Your task to perform on an android device: change timer sound Image 0: 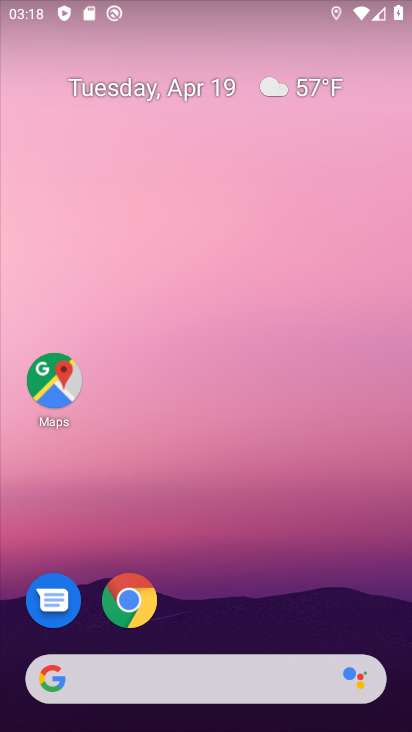
Step 0: drag from (387, 596) to (219, 58)
Your task to perform on an android device: change timer sound Image 1: 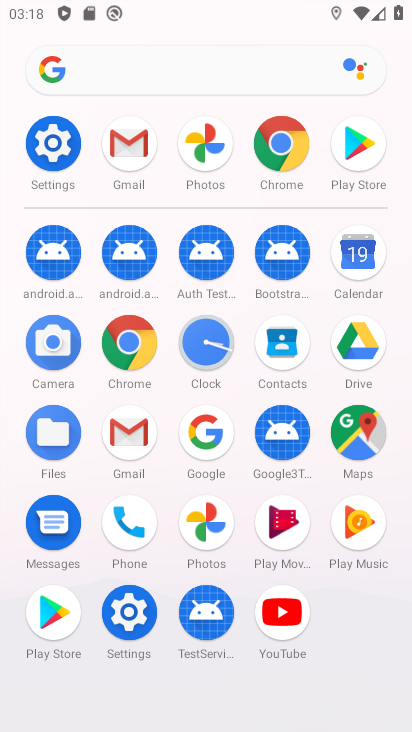
Step 1: click (218, 344)
Your task to perform on an android device: change timer sound Image 2: 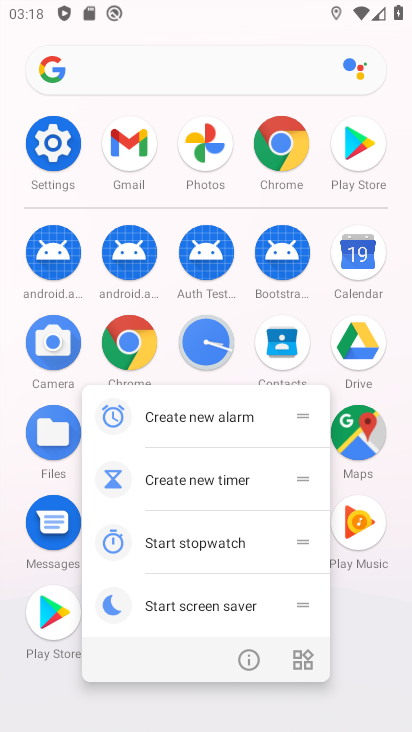
Step 2: click (213, 344)
Your task to perform on an android device: change timer sound Image 3: 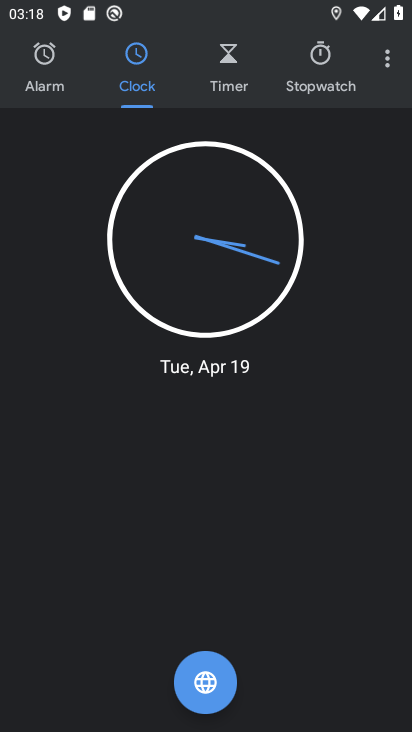
Step 3: click (395, 78)
Your task to perform on an android device: change timer sound Image 4: 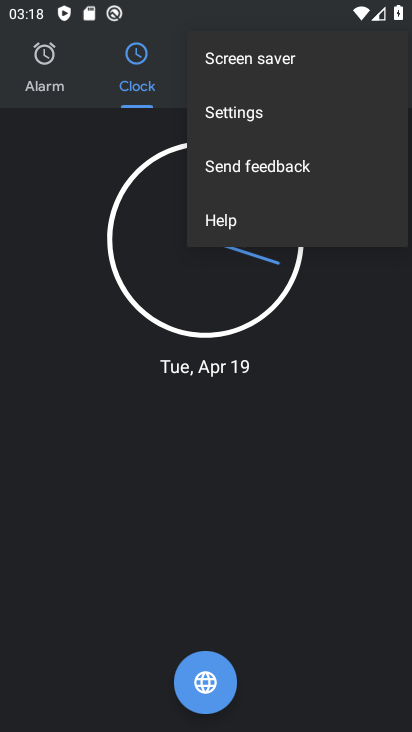
Step 4: click (300, 121)
Your task to perform on an android device: change timer sound Image 5: 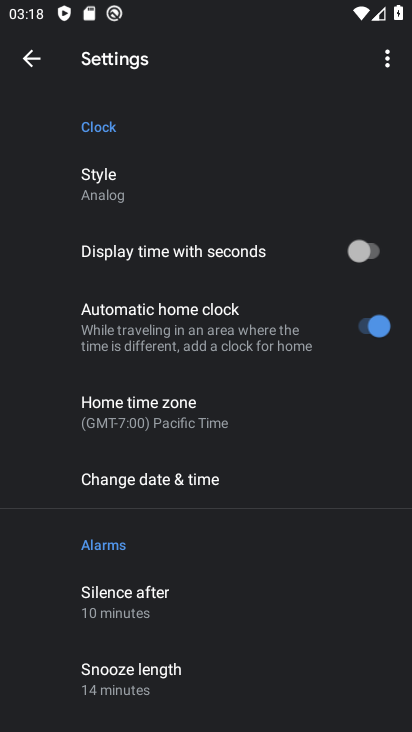
Step 5: drag from (273, 617) to (261, 140)
Your task to perform on an android device: change timer sound Image 6: 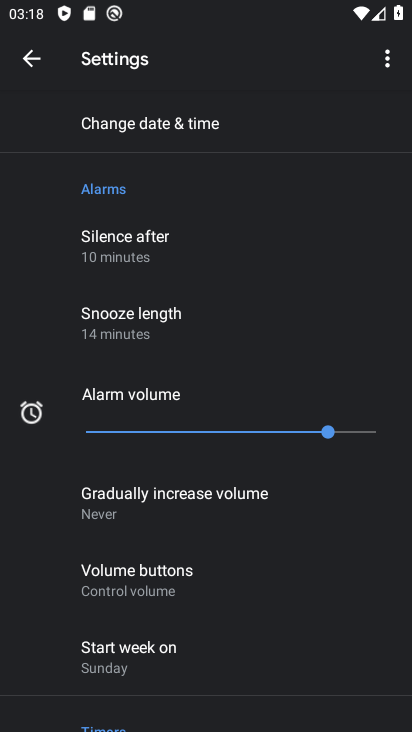
Step 6: drag from (283, 567) to (273, 277)
Your task to perform on an android device: change timer sound Image 7: 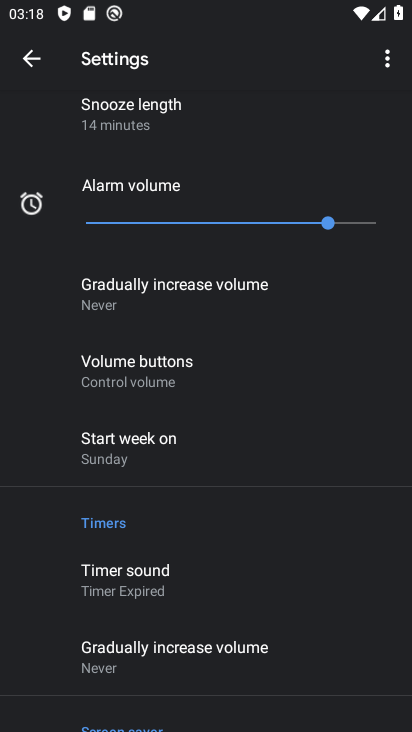
Step 7: click (244, 593)
Your task to perform on an android device: change timer sound Image 8: 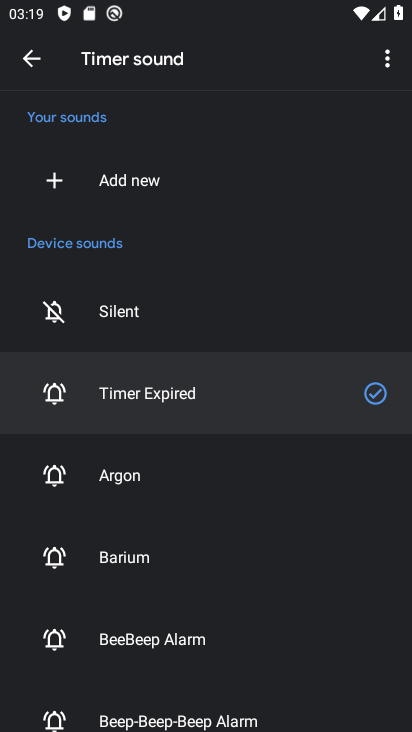
Step 8: click (259, 573)
Your task to perform on an android device: change timer sound Image 9: 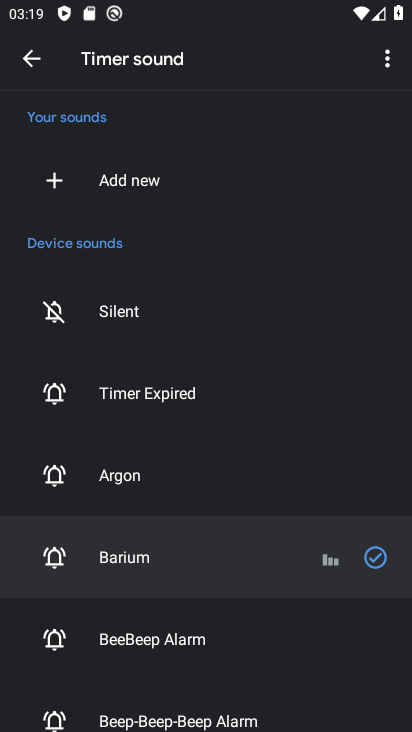
Step 9: task complete